Your task to perform on an android device: Is it going to rain this weekend? Image 0: 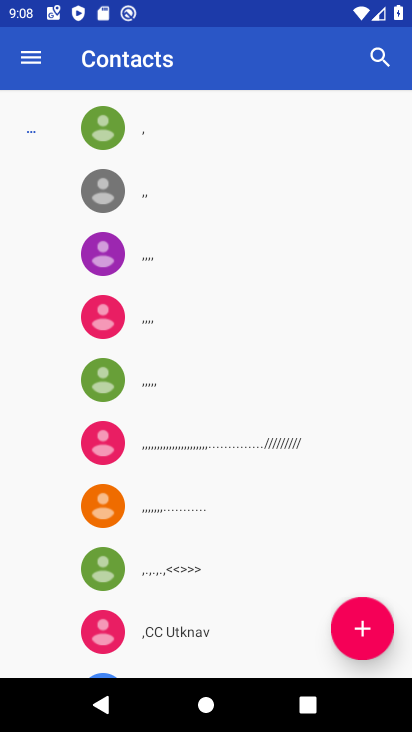
Step 0: press home button
Your task to perform on an android device: Is it going to rain this weekend? Image 1: 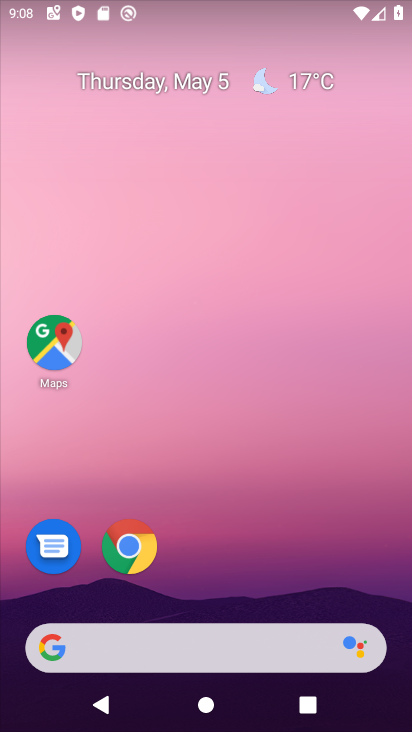
Step 1: click (301, 78)
Your task to perform on an android device: Is it going to rain this weekend? Image 2: 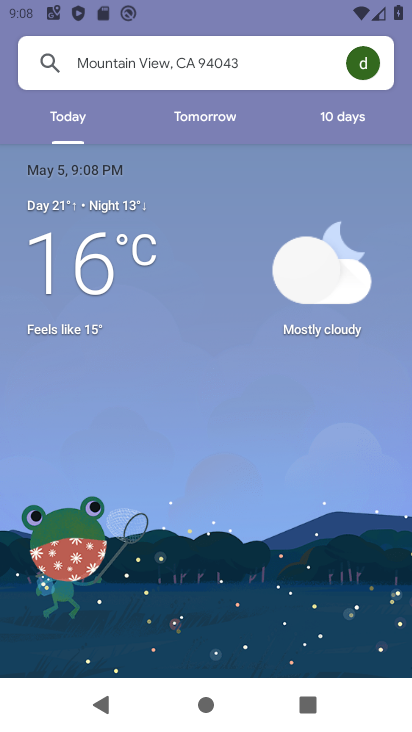
Step 2: click (327, 119)
Your task to perform on an android device: Is it going to rain this weekend? Image 3: 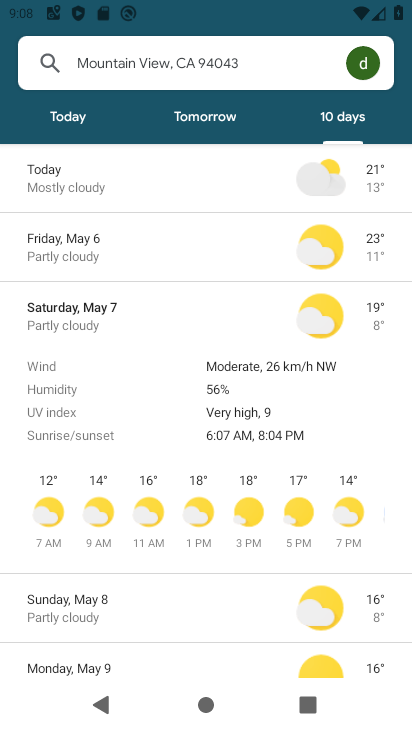
Step 3: task complete